Your task to perform on an android device: find which apps use the phone's location Image 0: 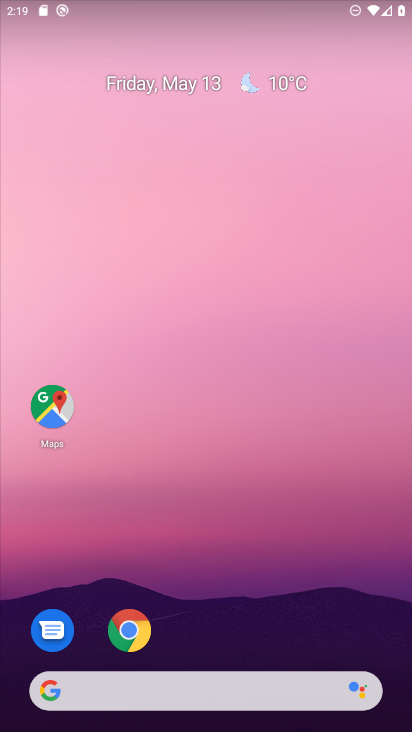
Step 0: press home button
Your task to perform on an android device: find which apps use the phone's location Image 1: 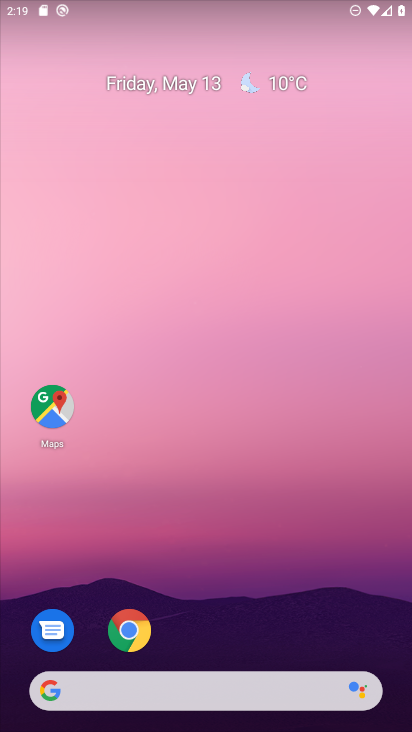
Step 1: drag from (239, 646) to (237, 41)
Your task to perform on an android device: find which apps use the phone's location Image 2: 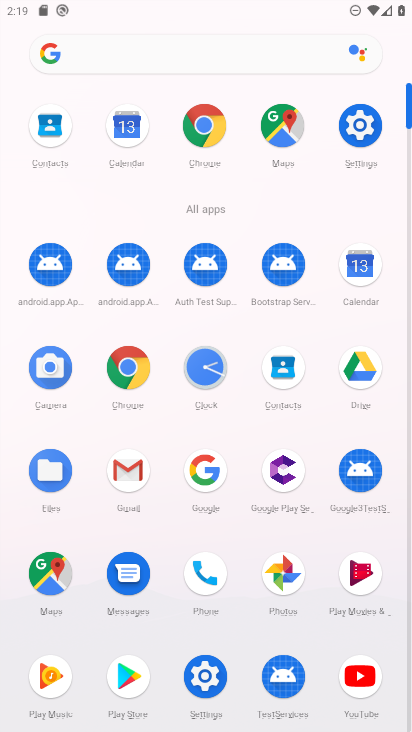
Step 2: click (361, 126)
Your task to perform on an android device: find which apps use the phone's location Image 3: 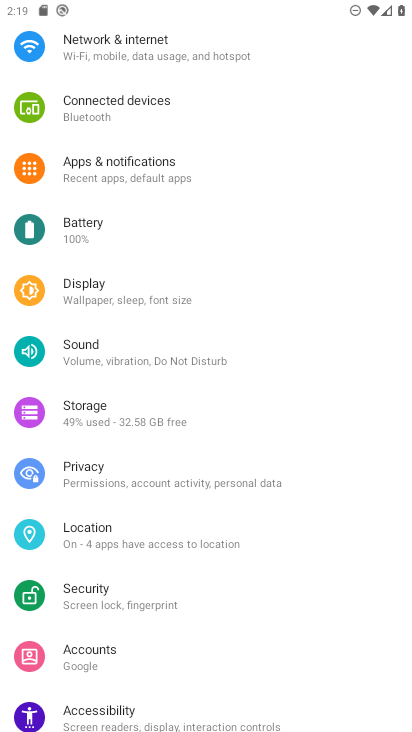
Step 3: click (118, 529)
Your task to perform on an android device: find which apps use the phone's location Image 4: 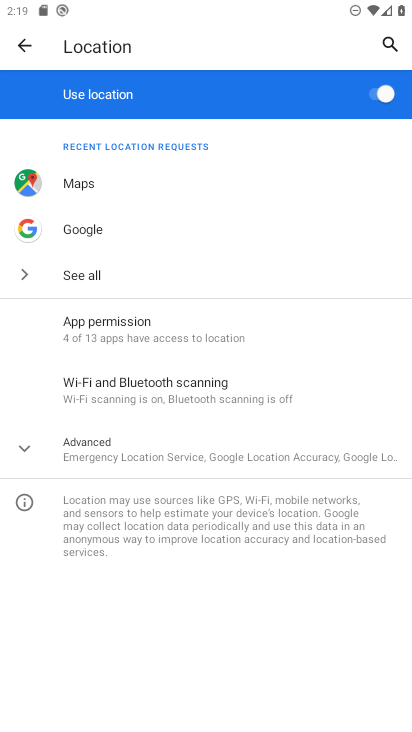
Step 4: click (26, 450)
Your task to perform on an android device: find which apps use the phone's location Image 5: 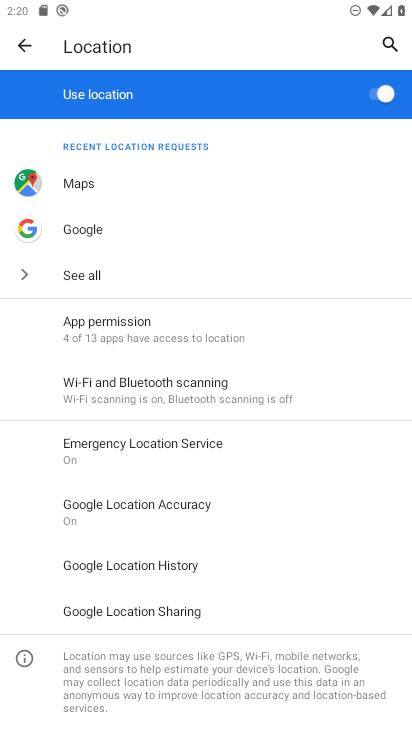
Step 5: click (119, 327)
Your task to perform on an android device: find which apps use the phone's location Image 6: 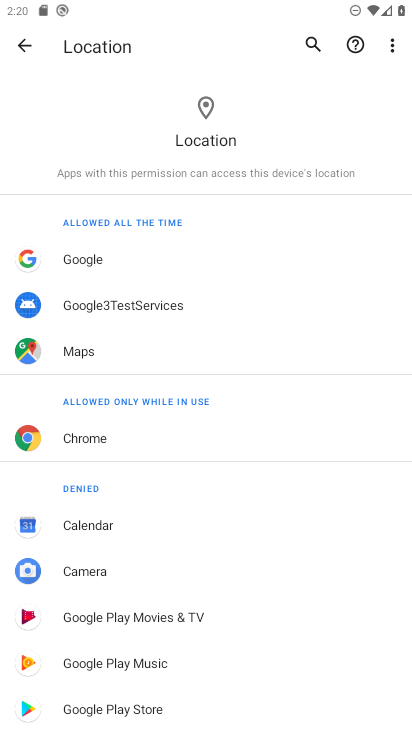
Step 6: task complete